Your task to perform on an android device: Open the web browser Image 0: 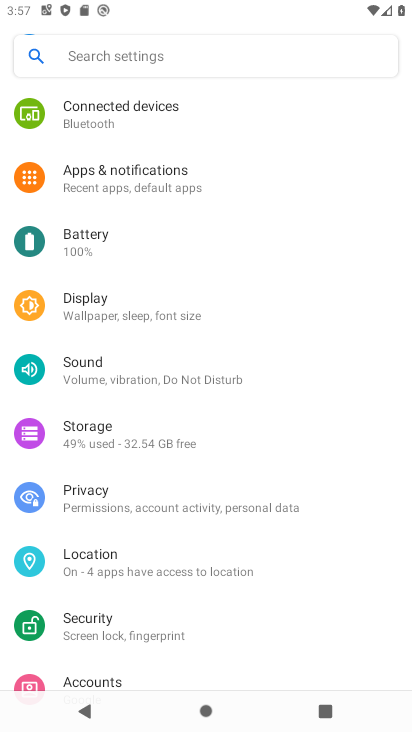
Step 0: press home button
Your task to perform on an android device: Open the web browser Image 1: 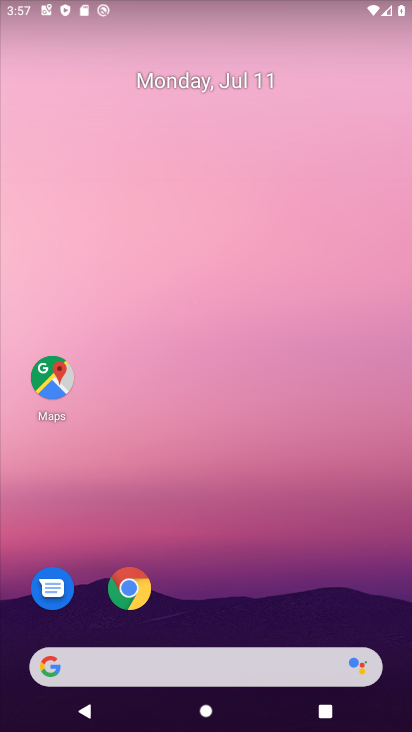
Step 1: click (98, 669)
Your task to perform on an android device: Open the web browser Image 2: 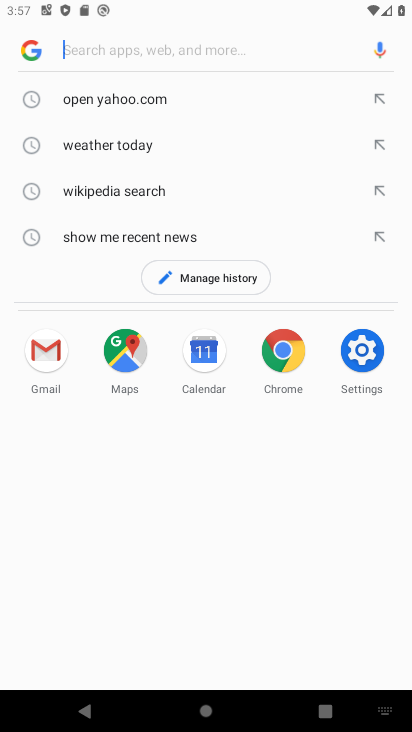
Step 2: task complete